Your task to perform on an android device: turn on location history Image 0: 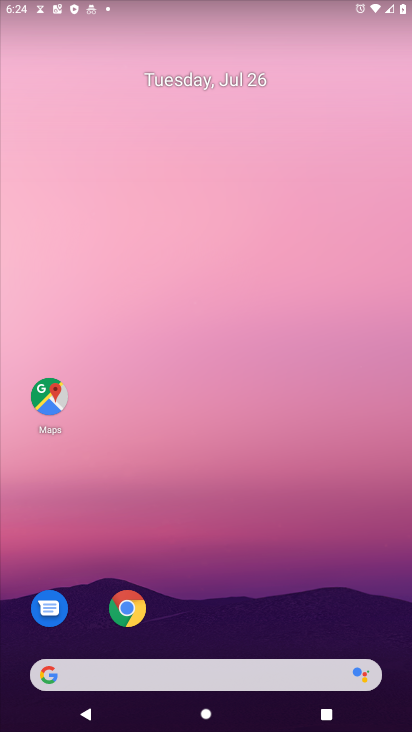
Step 0: press home button
Your task to perform on an android device: turn on location history Image 1: 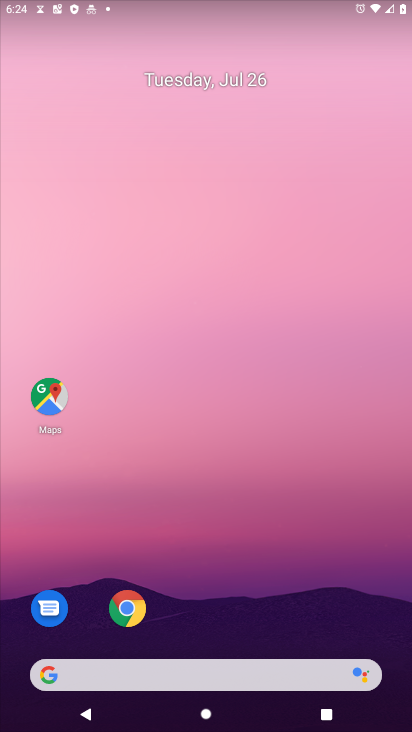
Step 1: drag from (199, 636) to (192, 11)
Your task to perform on an android device: turn on location history Image 2: 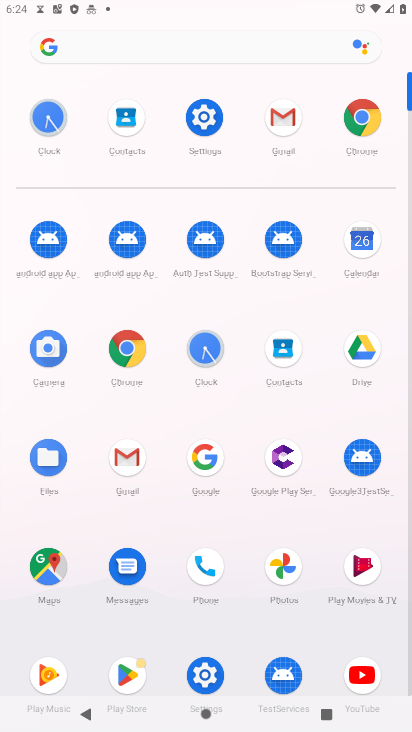
Step 2: click (188, 136)
Your task to perform on an android device: turn on location history Image 3: 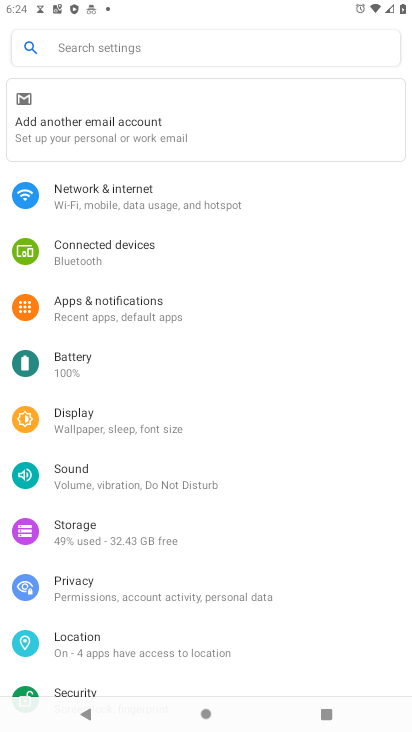
Step 3: click (85, 643)
Your task to perform on an android device: turn on location history Image 4: 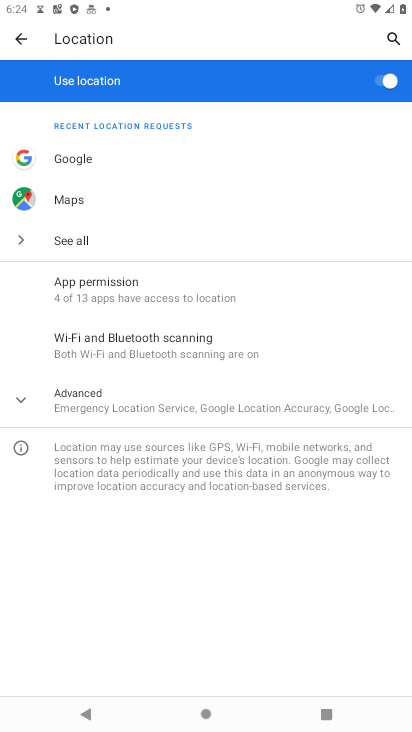
Step 4: click (83, 398)
Your task to perform on an android device: turn on location history Image 5: 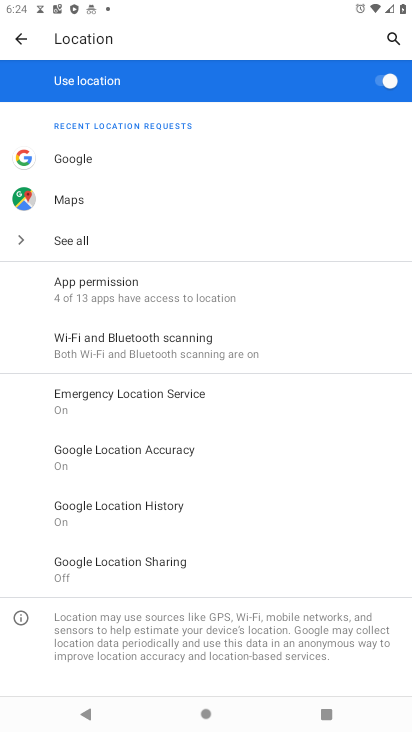
Step 5: click (128, 509)
Your task to perform on an android device: turn on location history Image 6: 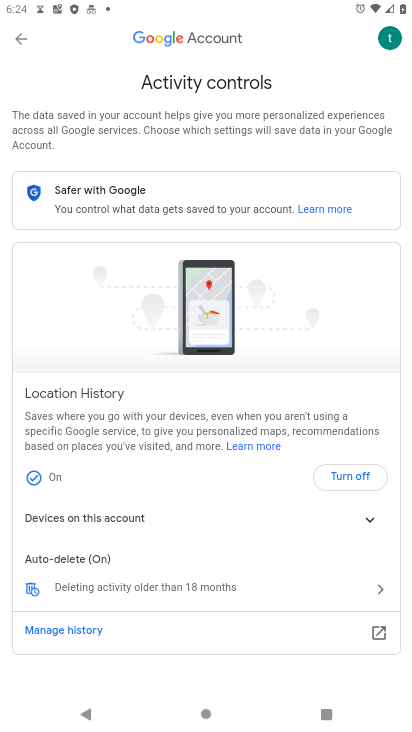
Step 6: task complete